Your task to perform on an android device: add a label to a message in the gmail app Image 0: 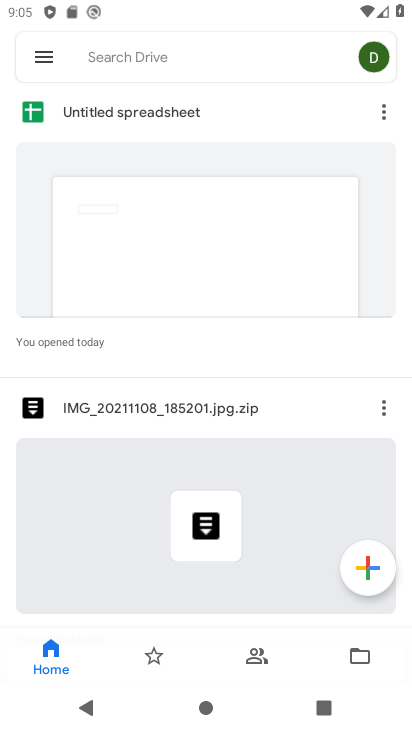
Step 0: press home button
Your task to perform on an android device: add a label to a message in the gmail app Image 1: 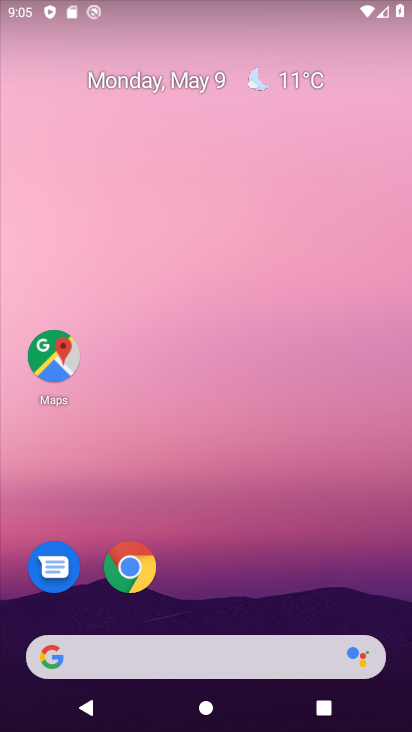
Step 1: drag from (252, 549) to (260, 29)
Your task to perform on an android device: add a label to a message in the gmail app Image 2: 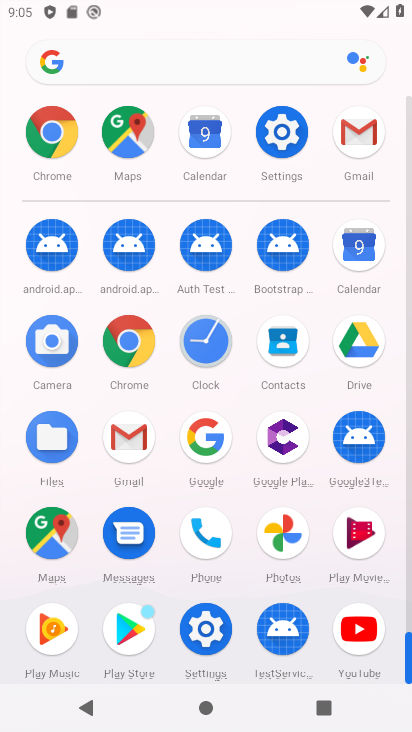
Step 2: click (350, 130)
Your task to perform on an android device: add a label to a message in the gmail app Image 3: 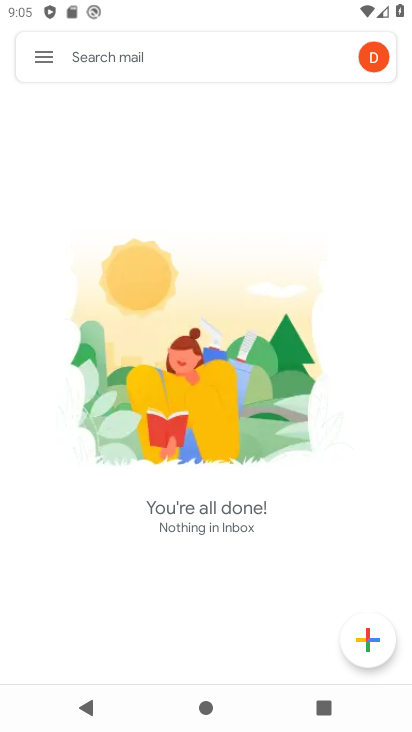
Step 3: click (39, 53)
Your task to perform on an android device: add a label to a message in the gmail app Image 4: 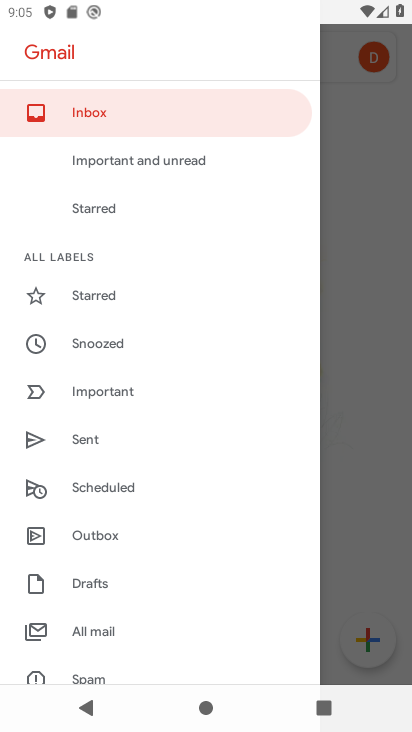
Step 4: click (124, 628)
Your task to perform on an android device: add a label to a message in the gmail app Image 5: 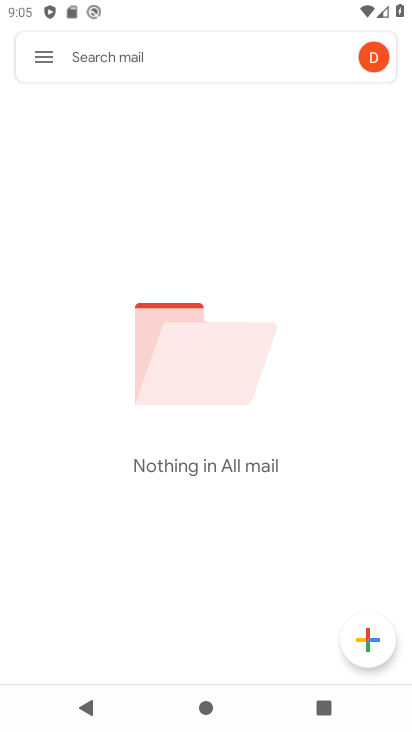
Step 5: task complete